Your task to perform on an android device: Open Maps and search for coffee Image 0: 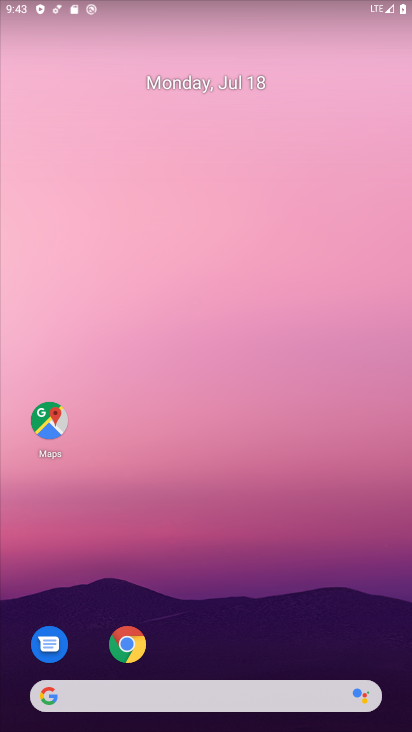
Step 0: drag from (357, 633) to (405, 362)
Your task to perform on an android device: Open Maps and search for coffee Image 1: 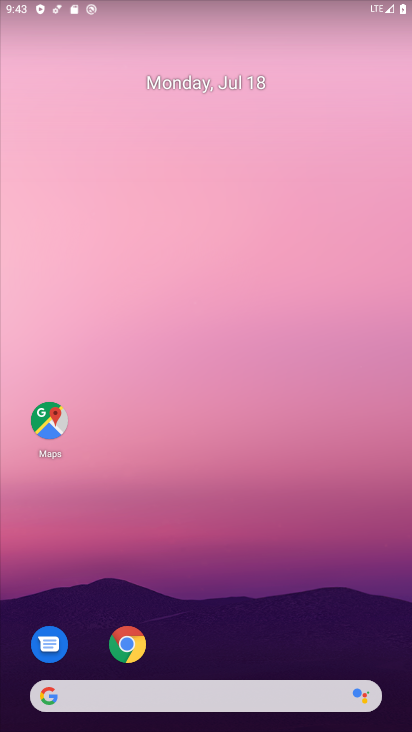
Step 1: drag from (316, 659) to (385, 62)
Your task to perform on an android device: Open Maps and search for coffee Image 2: 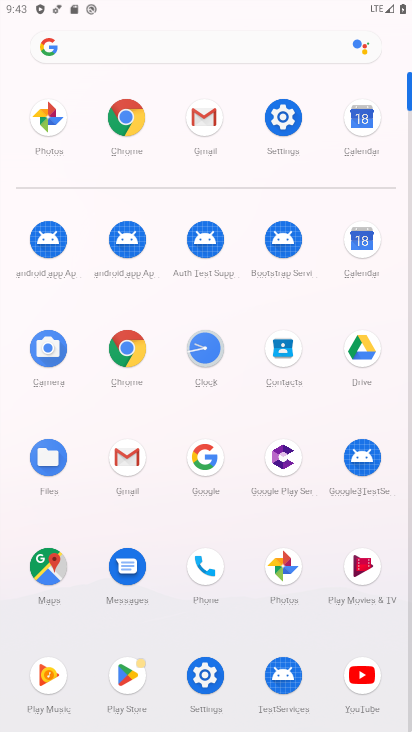
Step 2: click (50, 568)
Your task to perform on an android device: Open Maps and search for coffee Image 3: 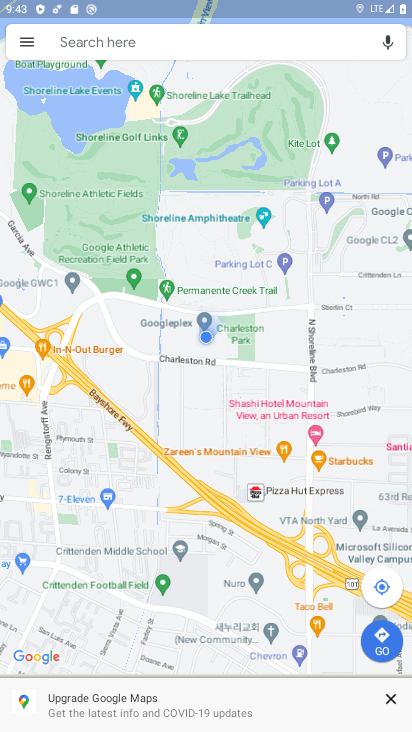
Step 3: click (185, 41)
Your task to perform on an android device: Open Maps and search for coffee Image 4: 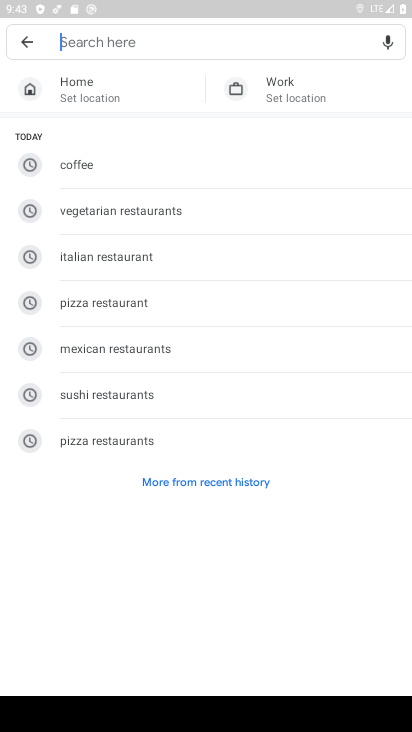
Step 4: type "coffee"
Your task to perform on an android device: Open Maps and search for coffee Image 5: 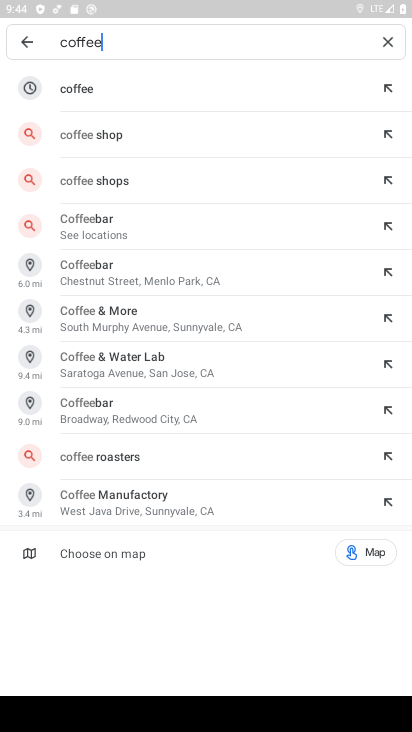
Step 5: click (165, 93)
Your task to perform on an android device: Open Maps and search for coffee Image 6: 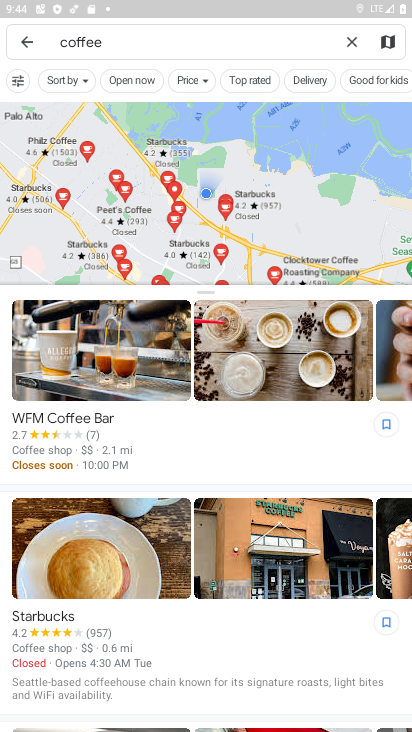
Step 6: task complete